Your task to perform on an android device: Go to eBay Image 0: 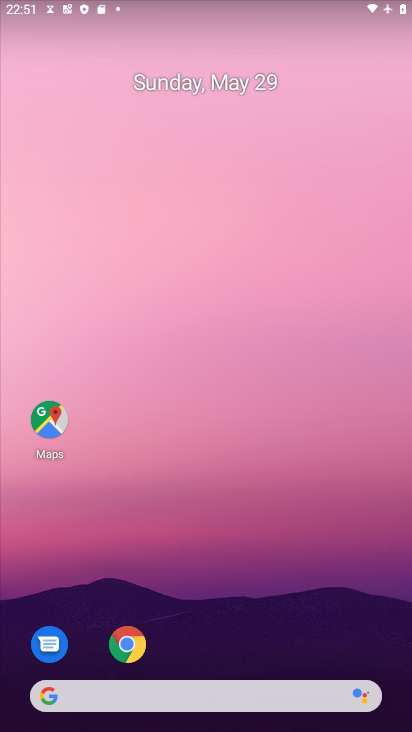
Step 0: click (134, 645)
Your task to perform on an android device: Go to eBay Image 1: 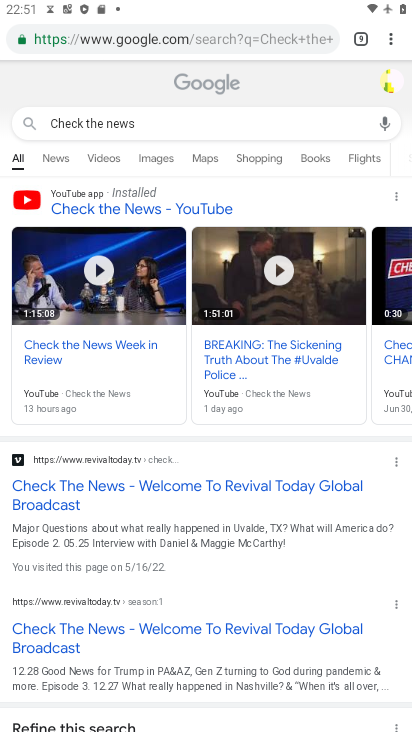
Step 1: click (390, 37)
Your task to perform on an android device: Go to eBay Image 2: 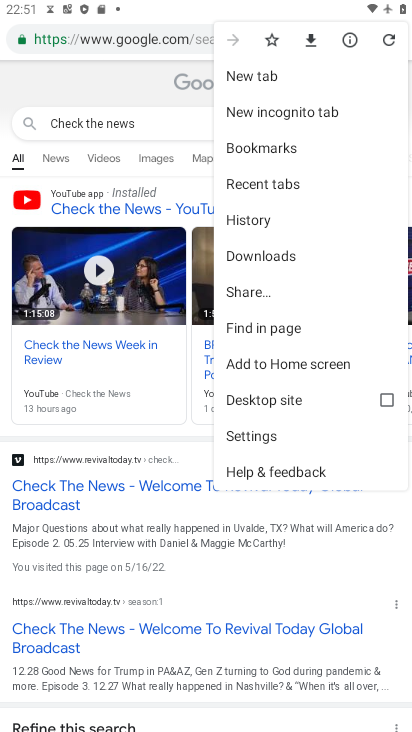
Step 2: click (248, 75)
Your task to perform on an android device: Go to eBay Image 3: 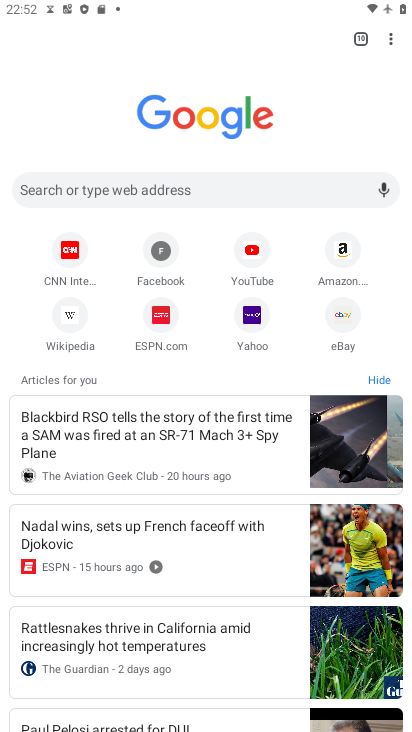
Step 3: click (346, 324)
Your task to perform on an android device: Go to eBay Image 4: 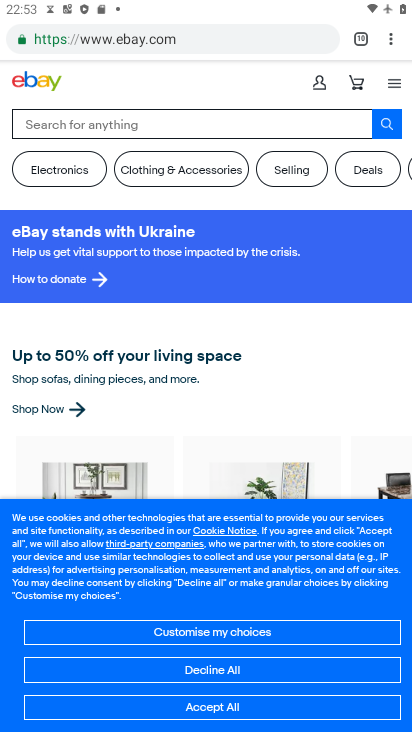
Step 4: task complete